Your task to perform on an android device: change keyboard looks Image 0: 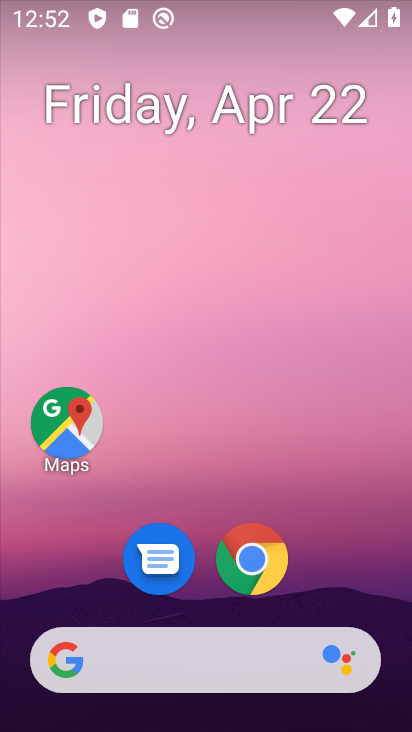
Step 0: drag from (159, 627) to (160, 270)
Your task to perform on an android device: change keyboard looks Image 1: 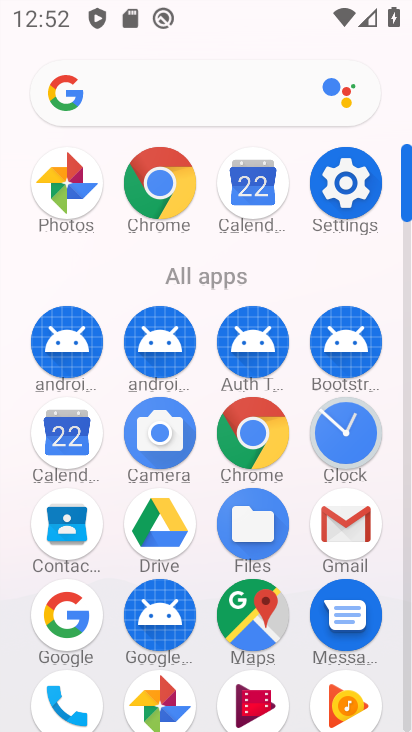
Step 1: click (352, 190)
Your task to perform on an android device: change keyboard looks Image 2: 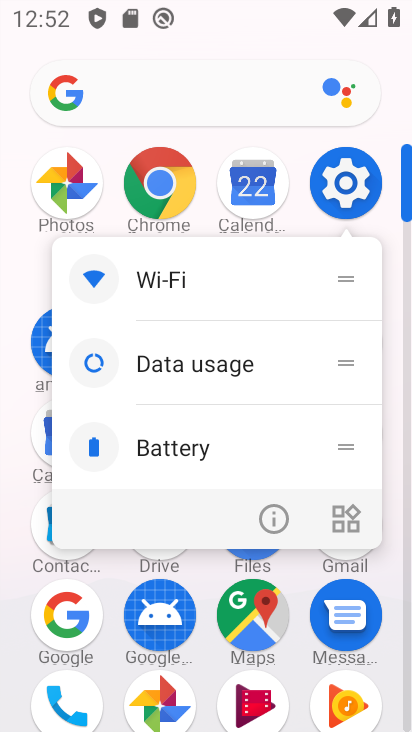
Step 2: click (342, 181)
Your task to perform on an android device: change keyboard looks Image 3: 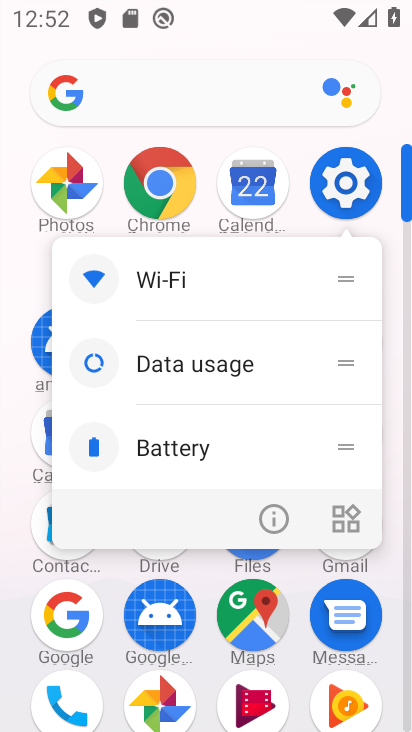
Step 3: click (342, 181)
Your task to perform on an android device: change keyboard looks Image 4: 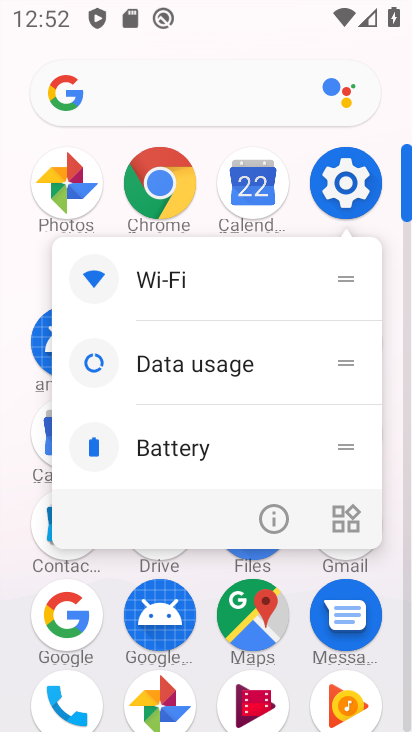
Step 4: click (342, 181)
Your task to perform on an android device: change keyboard looks Image 5: 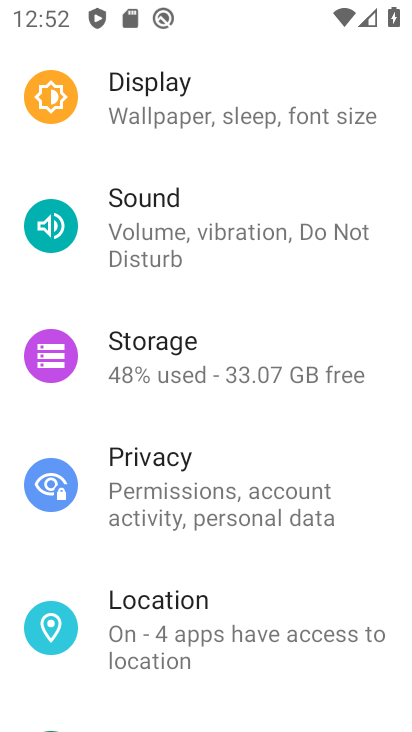
Step 5: drag from (212, 700) to (215, 331)
Your task to perform on an android device: change keyboard looks Image 6: 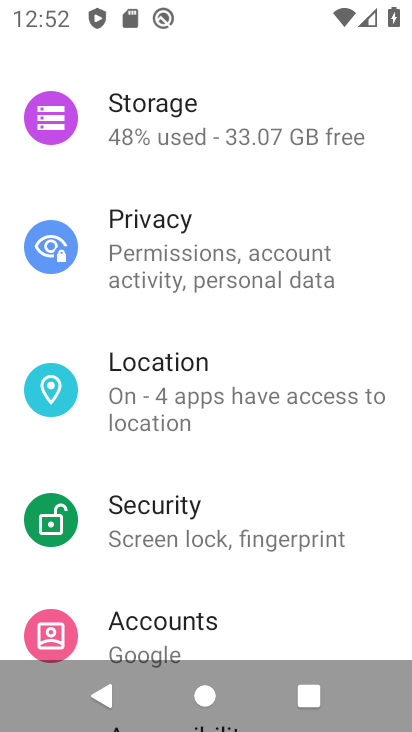
Step 6: drag from (227, 600) to (246, 303)
Your task to perform on an android device: change keyboard looks Image 7: 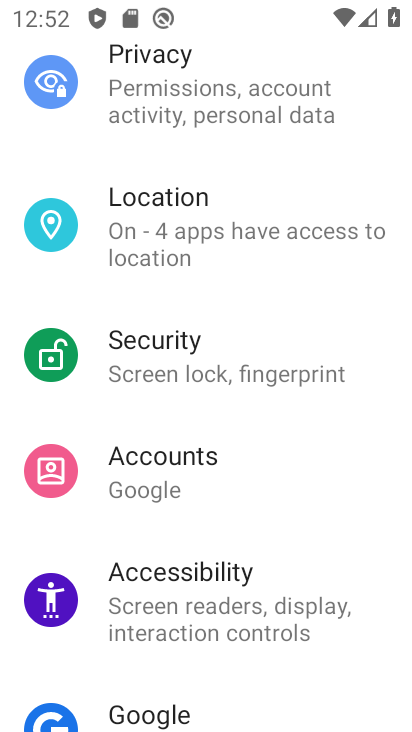
Step 7: drag from (205, 699) to (245, 419)
Your task to perform on an android device: change keyboard looks Image 8: 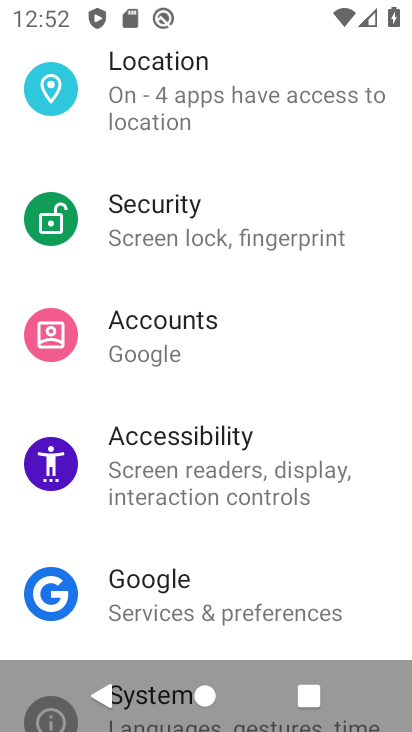
Step 8: drag from (202, 596) to (231, 314)
Your task to perform on an android device: change keyboard looks Image 9: 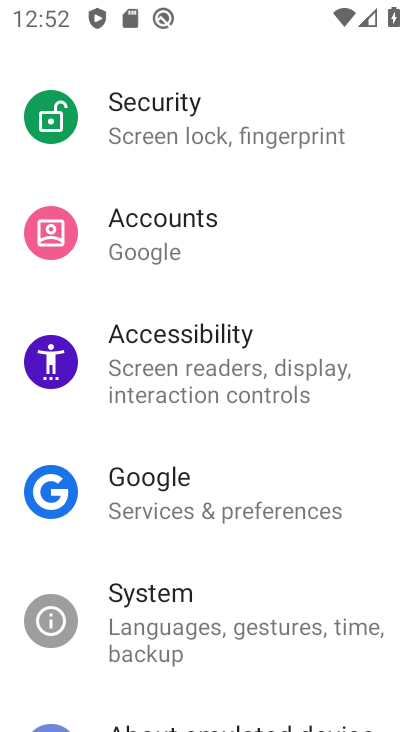
Step 9: click (152, 627)
Your task to perform on an android device: change keyboard looks Image 10: 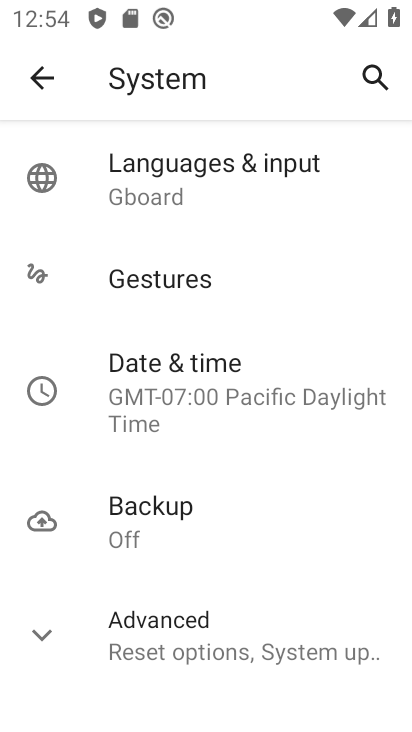
Step 10: click (230, 174)
Your task to perform on an android device: change keyboard looks Image 11: 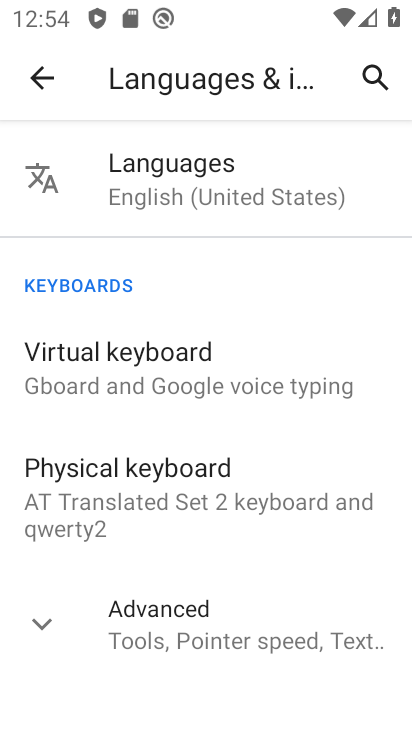
Step 11: click (85, 361)
Your task to perform on an android device: change keyboard looks Image 12: 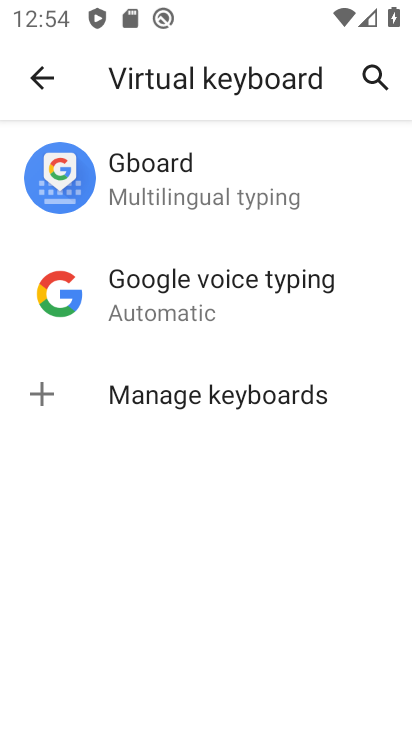
Step 12: click (158, 184)
Your task to perform on an android device: change keyboard looks Image 13: 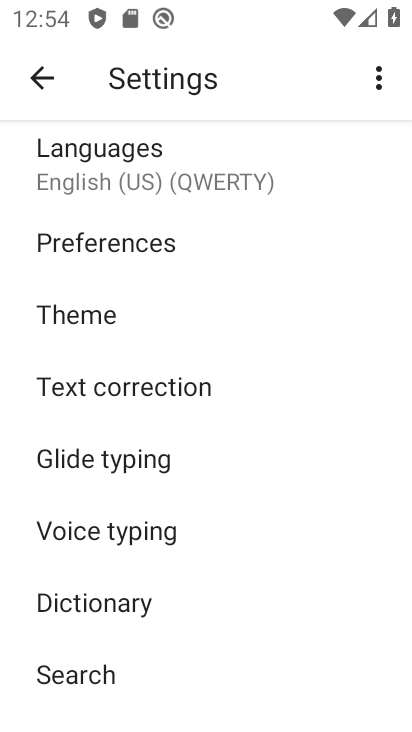
Step 13: click (99, 312)
Your task to perform on an android device: change keyboard looks Image 14: 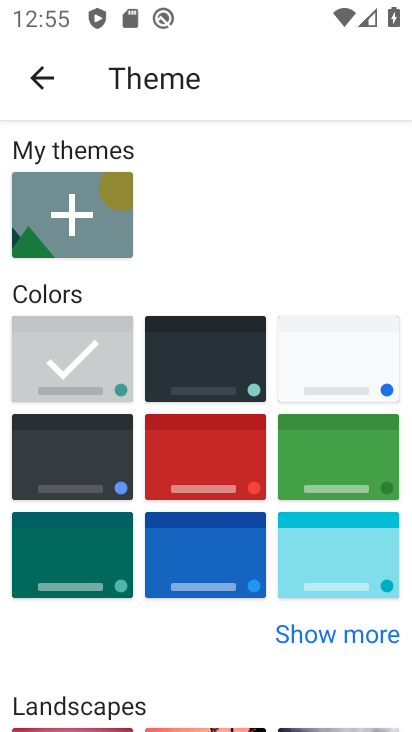
Step 14: click (169, 358)
Your task to perform on an android device: change keyboard looks Image 15: 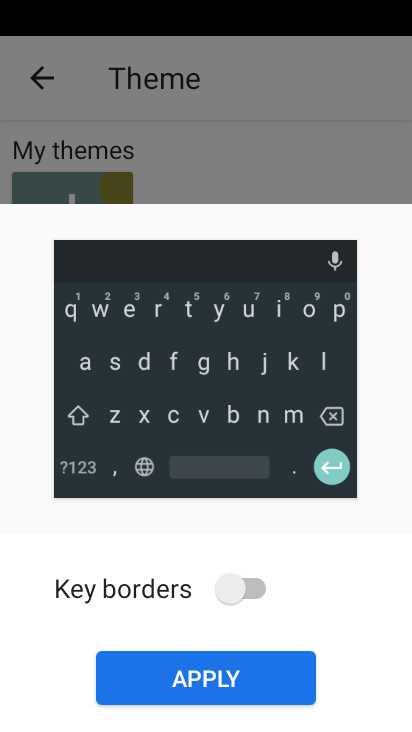
Step 15: click (212, 680)
Your task to perform on an android device: change keyboard looks Image 16: 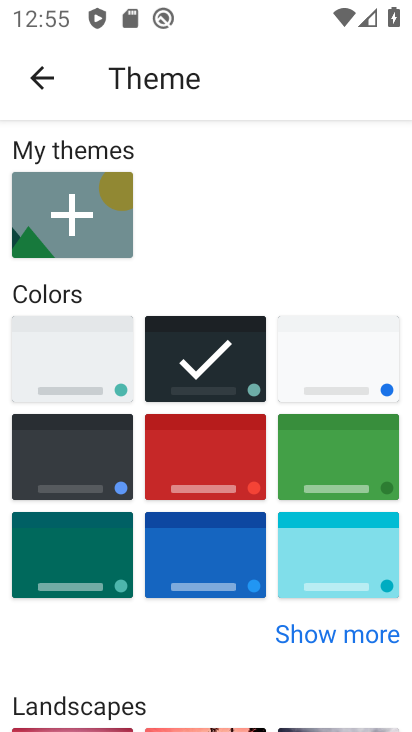
Step 16: task complete